Your task to perform on an android device: delete browsing data in the chrome app Image 0: 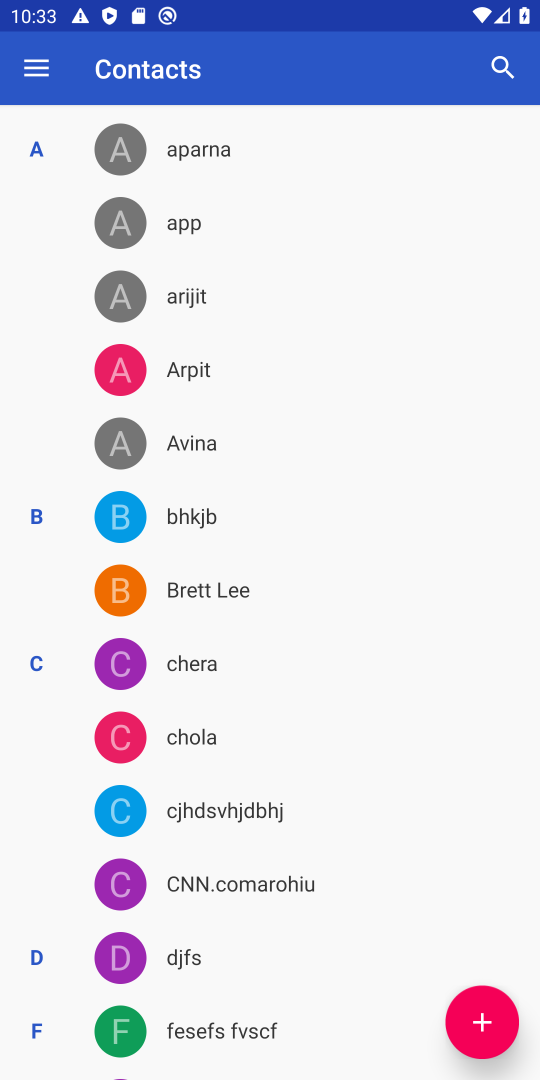
Step 0: press home button
Your task to perform on an android device: delete browsing data in the chrome app Image 1: 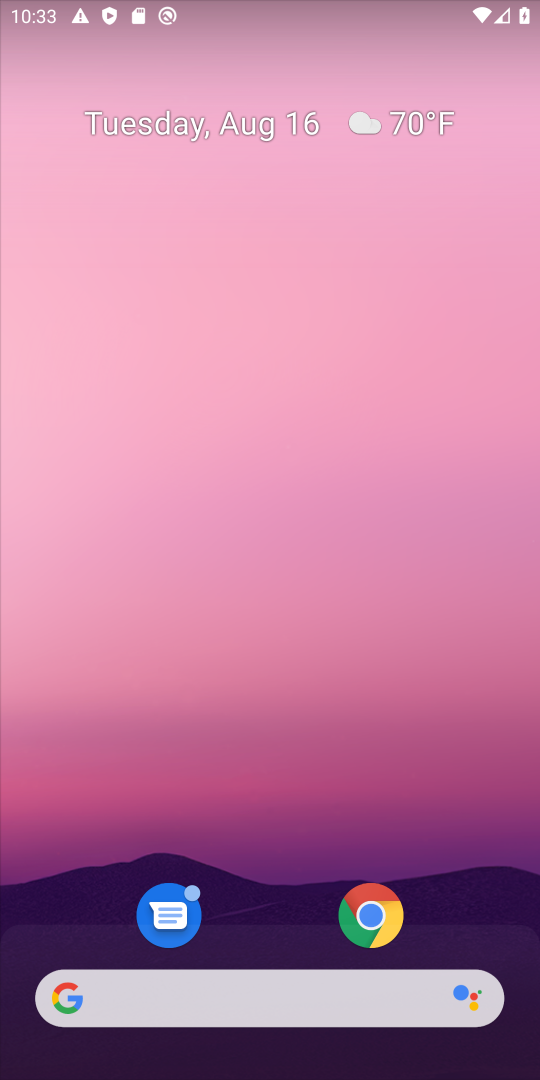
Step 1: drag from (250, 953) to (141, 7)
Your task to perform on an android device: delete browsing data in the chrome app Image 2: 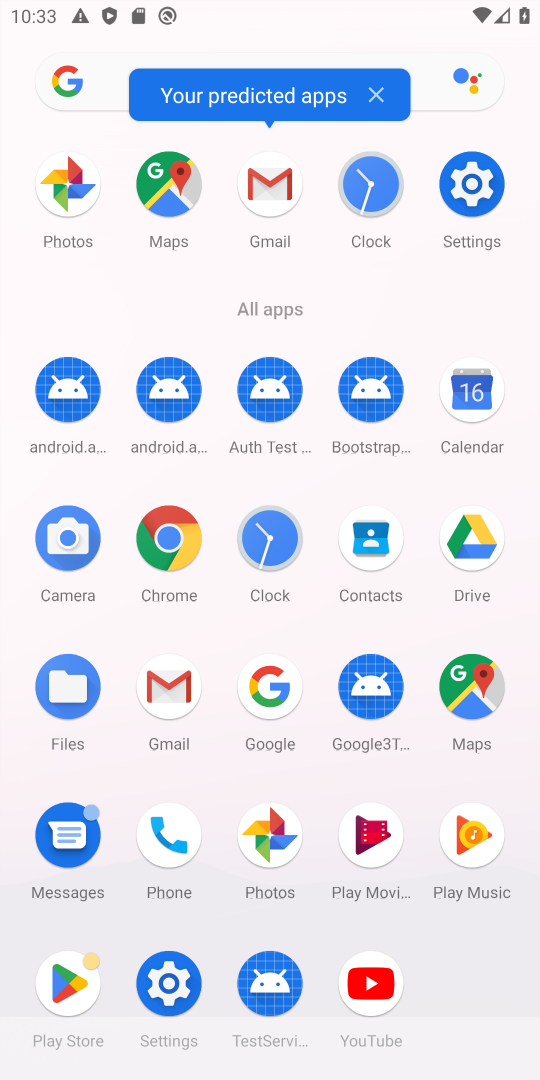
Step 2: click (156, 577)
Your task to perform on an android device: delete browsing data in the chrome app Image 3: 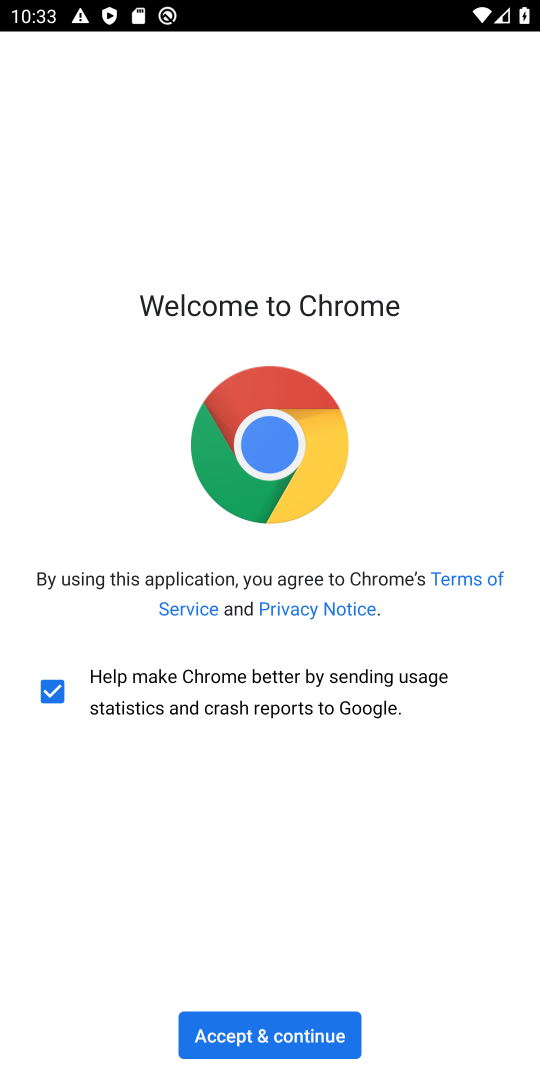
Step 3: click (208, 1008)
Your task to perform on an android device: delete browsing data in the chrome app Image 4: 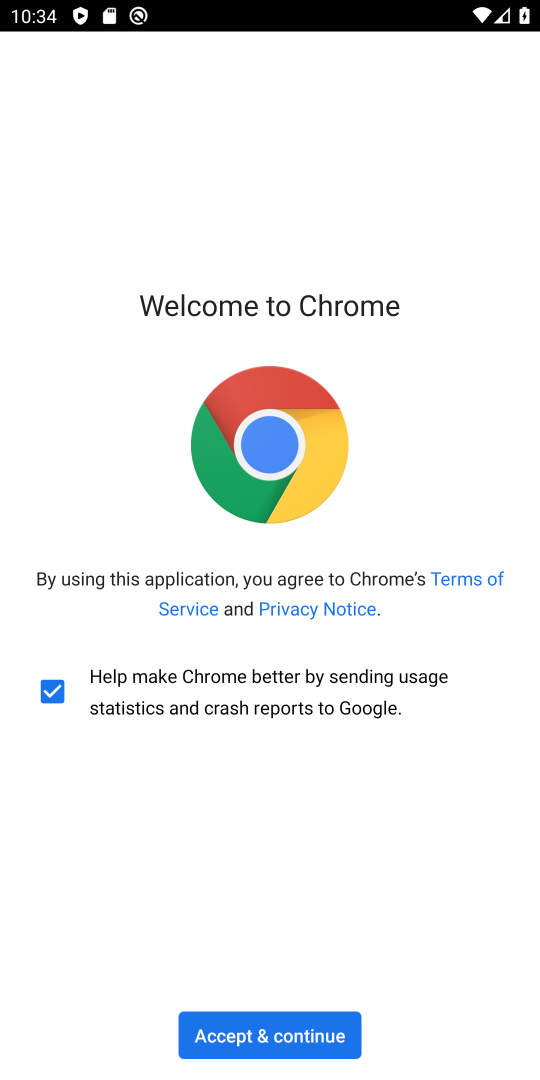
Step 4: click (208, 1008)
Your task to perform on an android device: delete browsing data in the chrome app Image 5: 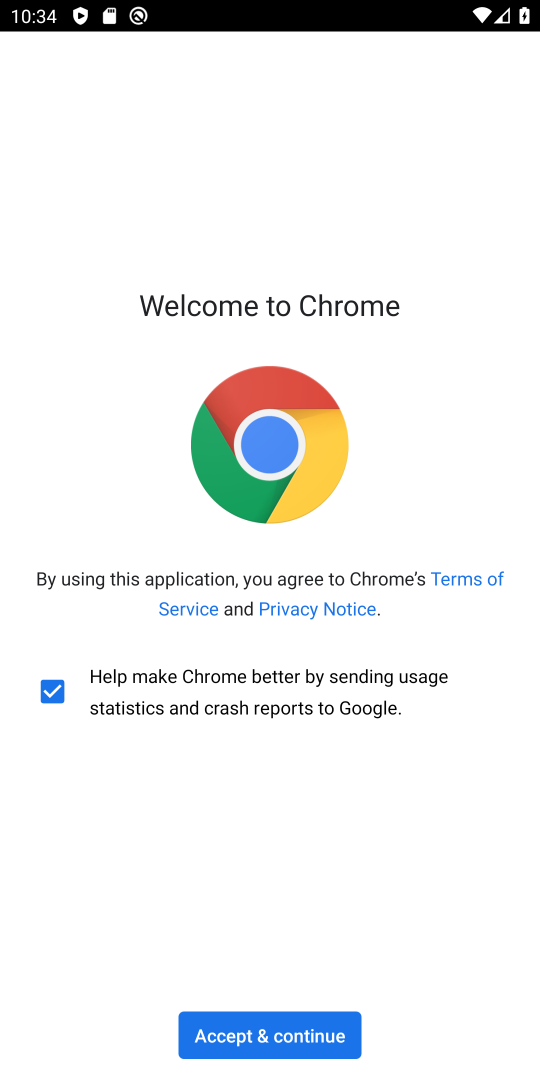
Step 5: click (328, 1037)
Your task to perform on an android device: delete browsing data in the chrome app Image 6: 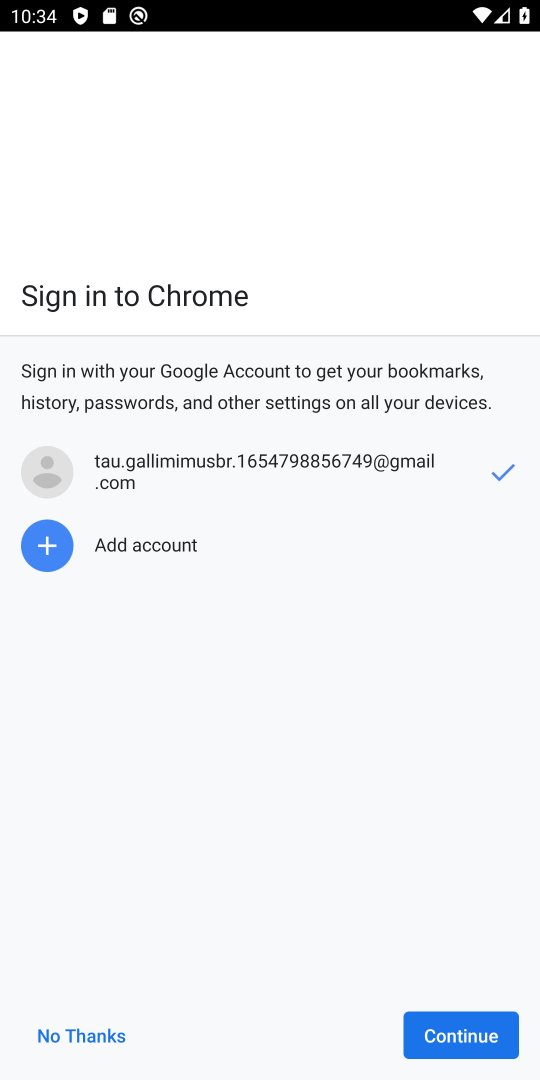
Step 6: click (425, 1036)
Your task to perform on an android device: delete browsing data in the chrome app Image 7: 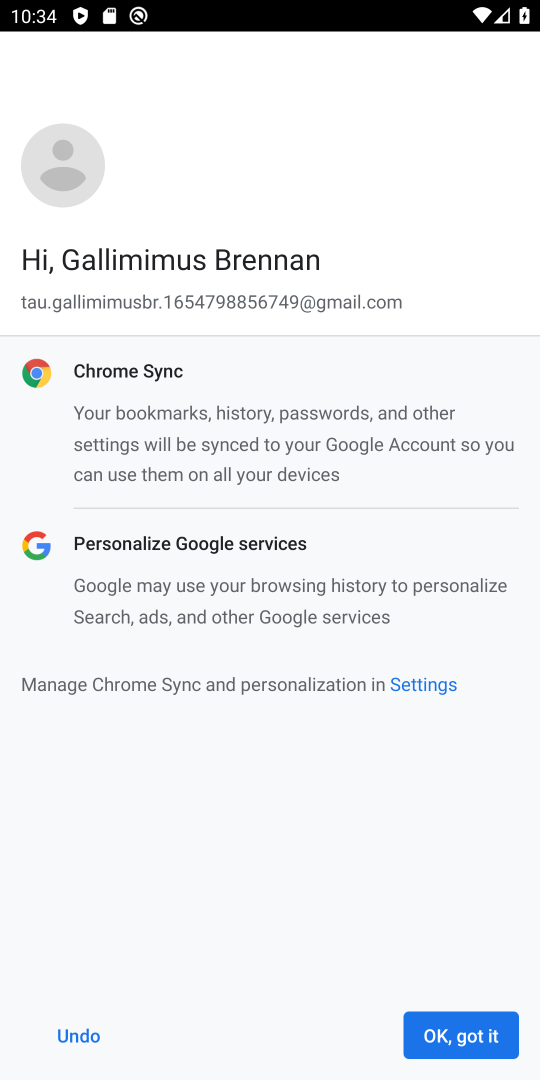
Step 7: click (425, 1036)
Your task to perform on an android device: delete browsing data in the chrome app Image 8: 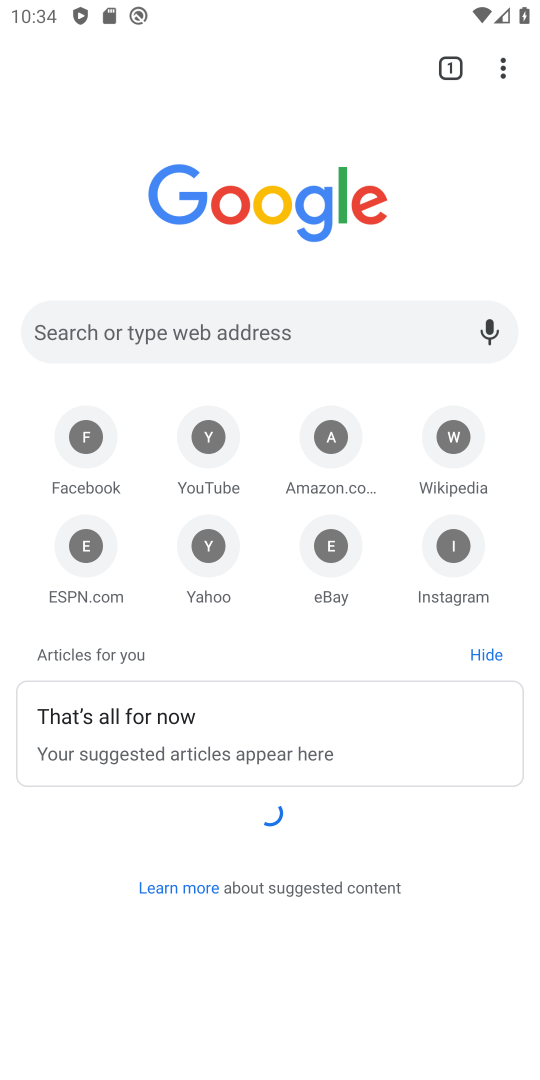
Step 8: click (505, 58)
Your task to perform on an android device: delete browsing data in the chrome app Image 9: 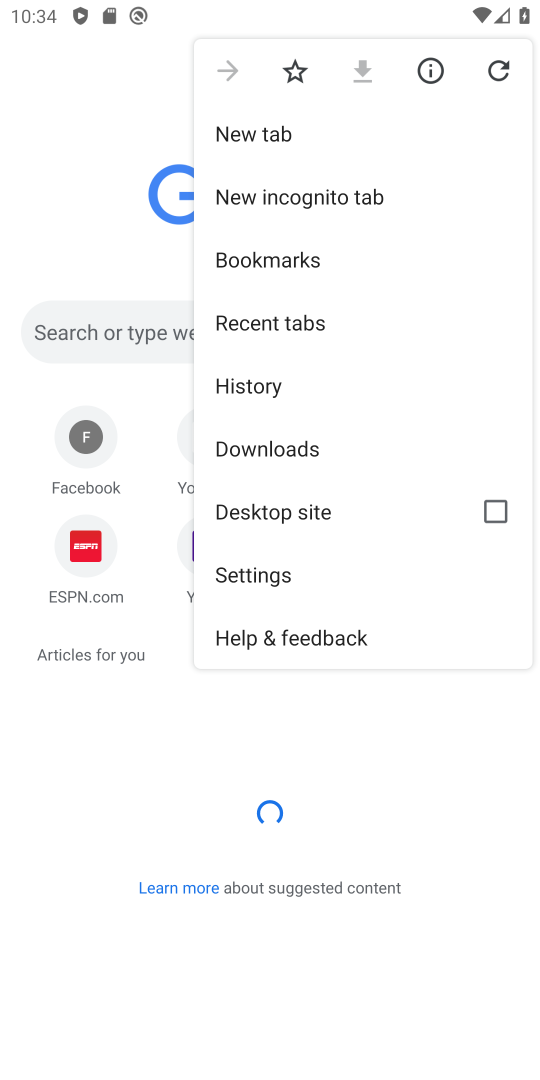
Step 9: click (235, 569)
Your task to perform on an android device: delete browsing data in the chrome app Image 10: 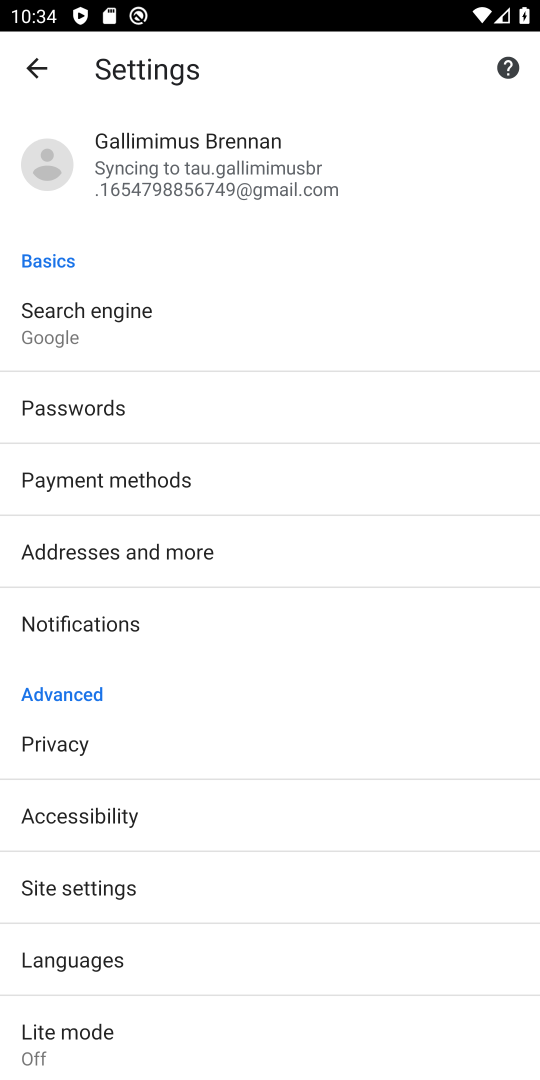
Step 10: click (48, 744)
Your task to perform on an android device: delete browsing data in the chrome app Image 11: 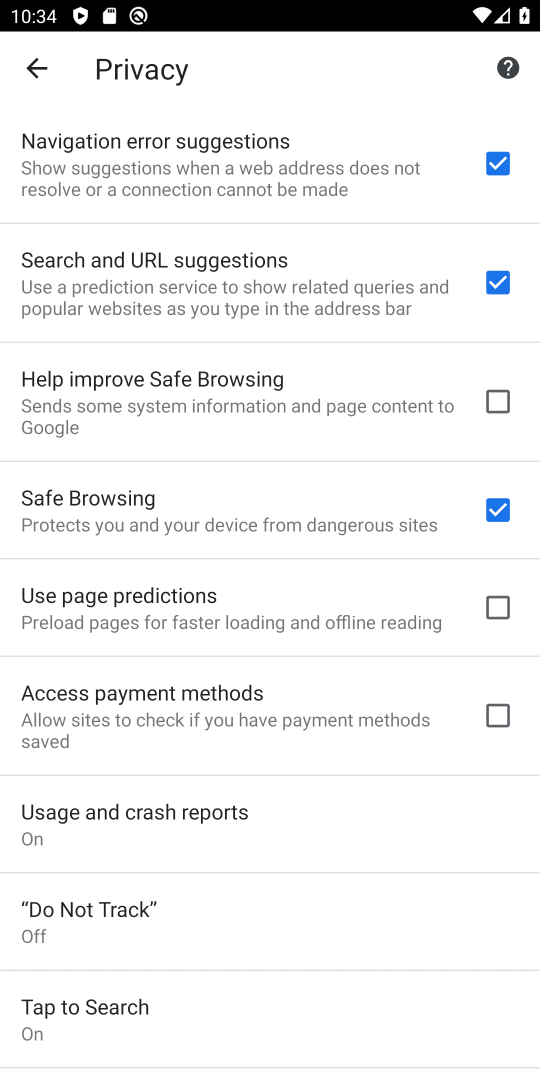
Step 11: drag from (371, 884) to (518, 87)
Your task to perform on an android device: delete browsing data in the chrome app Image 12: 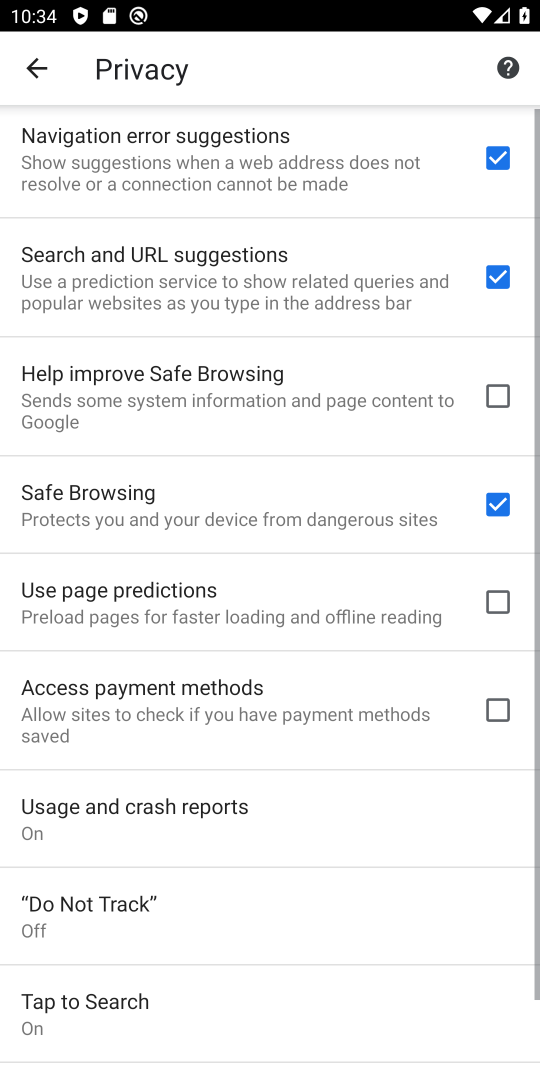
Step 12: click (74, 1036)
Your task to perform on an android device: delete browsing data in the chrome app Image 13: 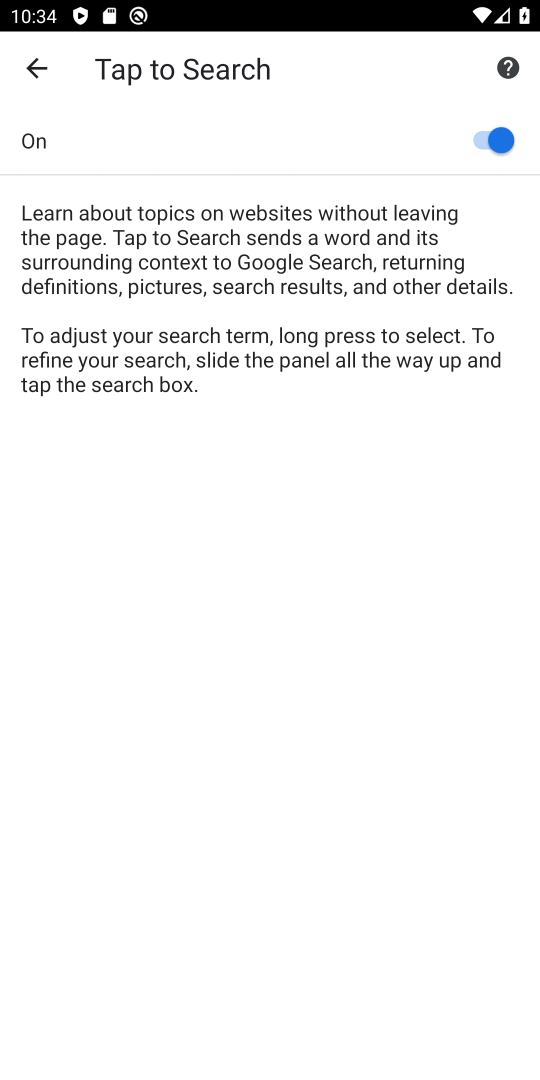
Step 13: click (33, 65)
Your task to perform on an android device: delete browsing data in the chrome app Image 14: 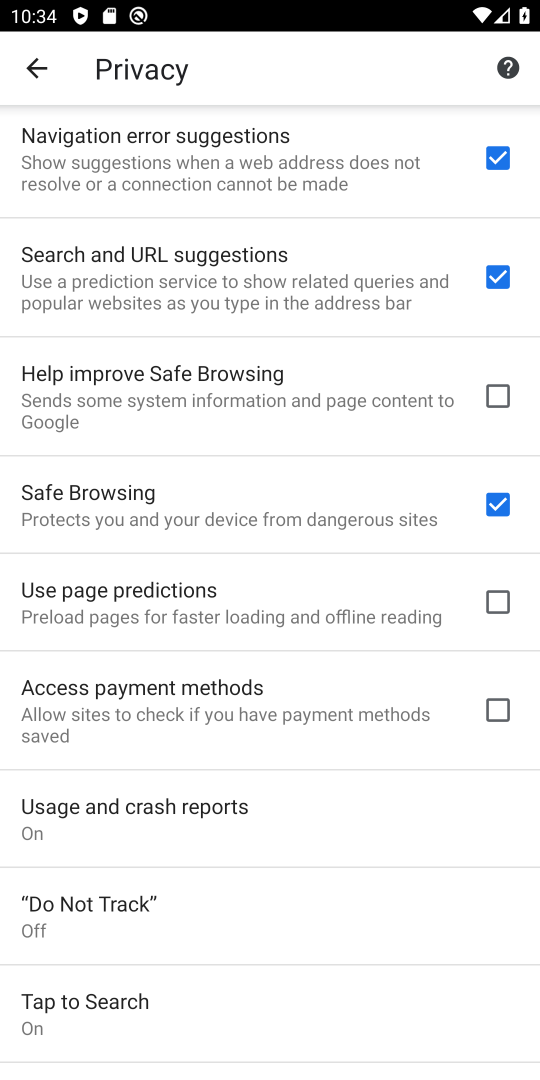
Step 14: drag from (356, 780) to (427, 28)
Your task to perform on an android device: delete browsing data in the chrome app Image 15: 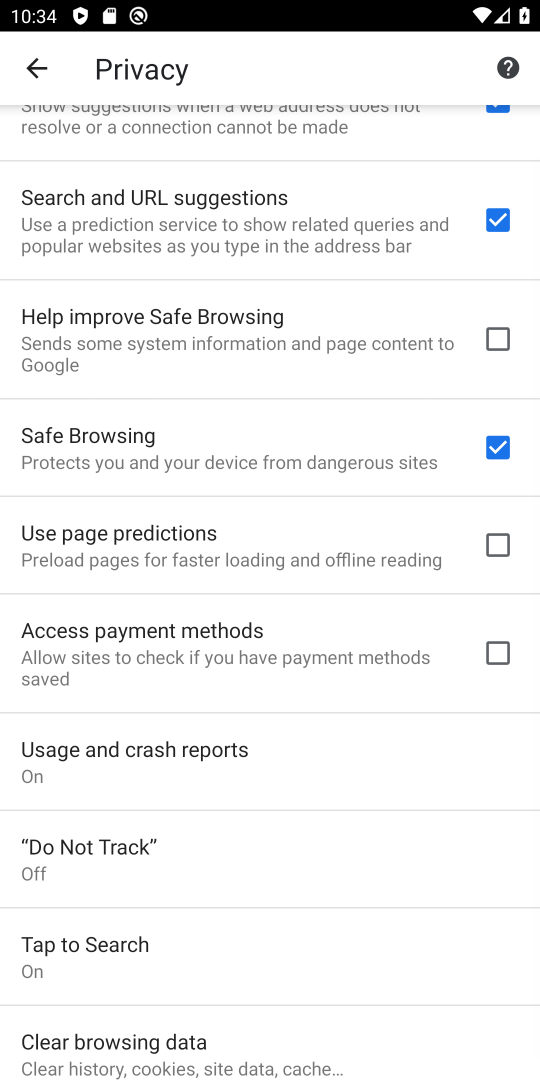
Step 15: click (46, 1020)
Your task to perform on an android device: delete browsing data in the chrome app Image 16: 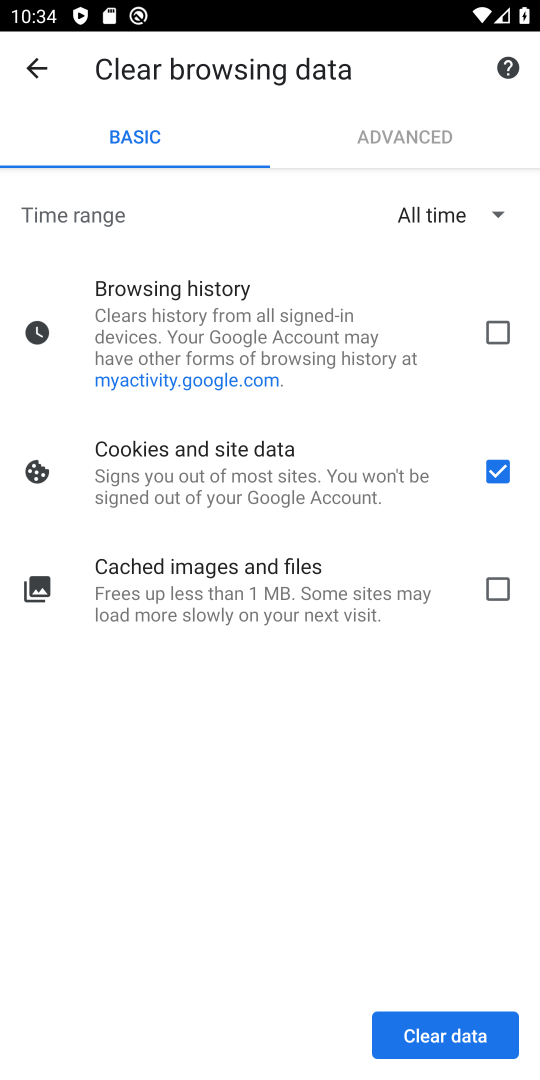
Step 16: click (497, 590)
Your task to perform on an android device: delete browsing data in the chrome app Image 17: 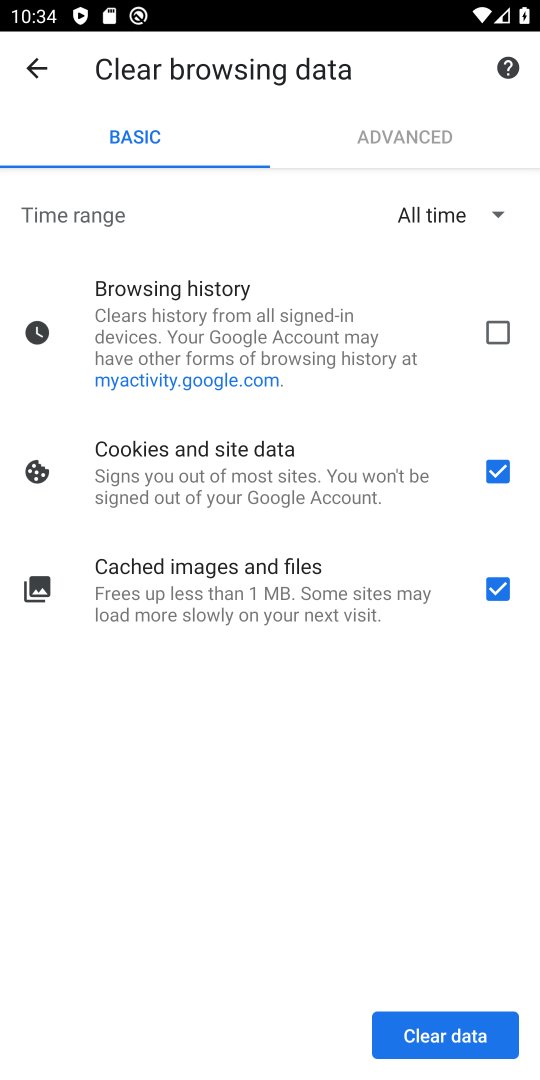
Step 17: click (481, 330)
Your task to perform on an android device: delete browsing data in the chrome app Image 18: 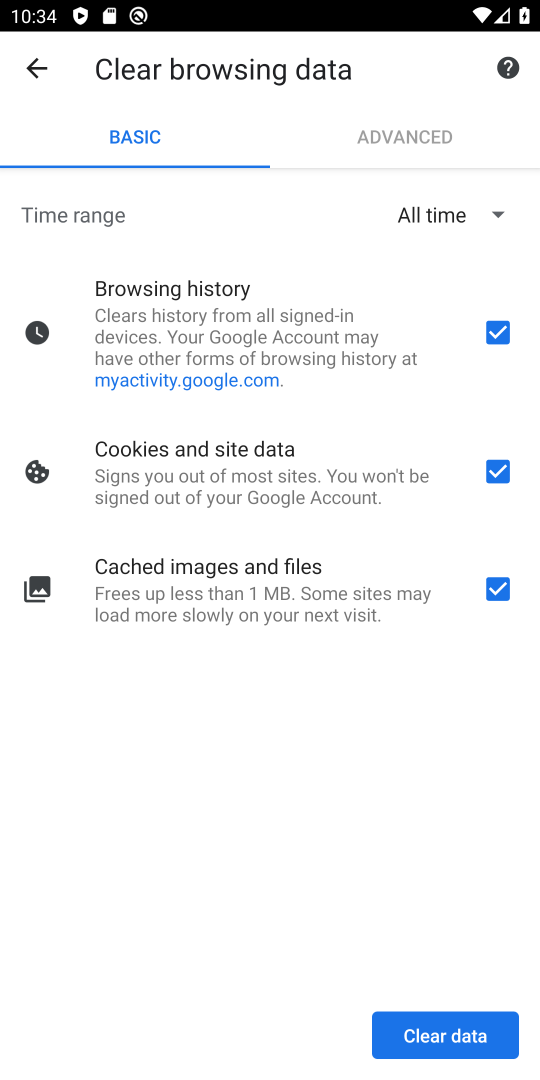
Step 18: click (497, 1041)
Your task to perform on an android device: delete browsing data in the chrome app Image 19: 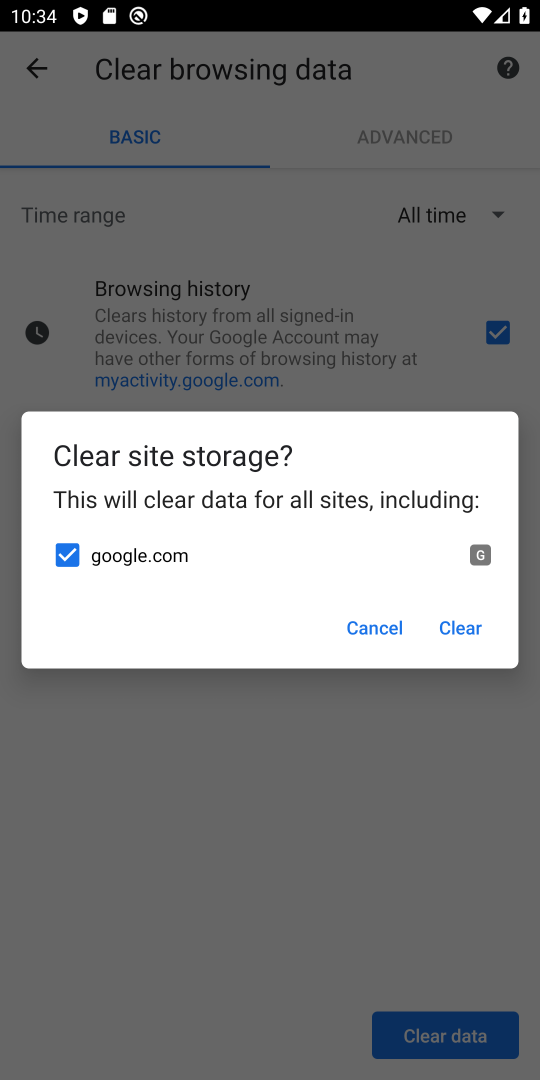
Step 19: click (461, 621)
Your task to perform on an android device: delete browsing data in the chrome app Image 20: 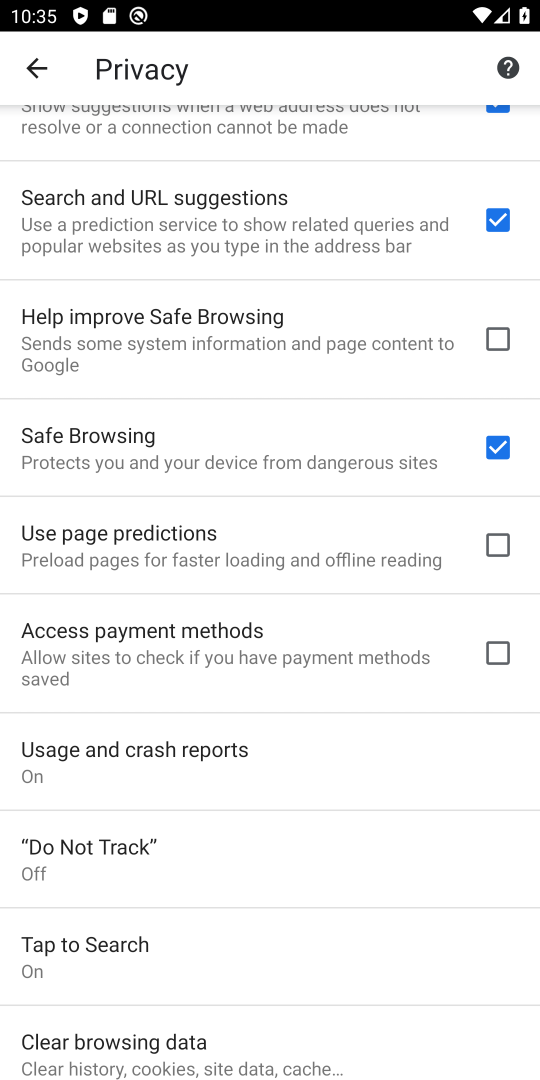
Step 20: task complete